Your task to perform on an android device: install app "Expedia: Hotels, Flights & Car" Image 0: 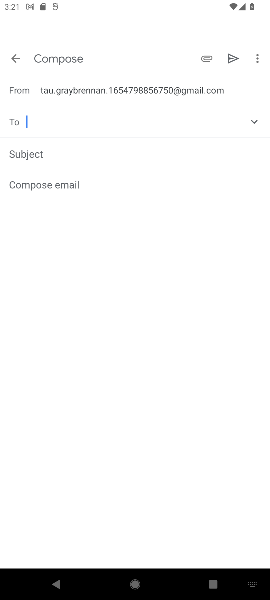
Step 0: press home button
Your task to perform on an android device: install app "Expedia: Hotels, Flights & Car" Image 1: 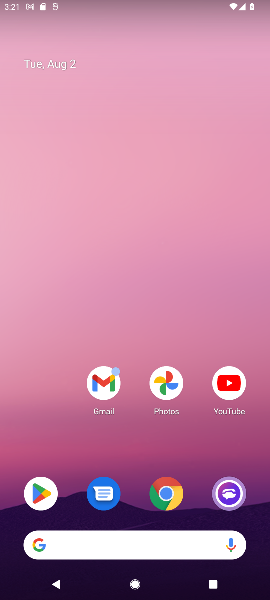
Step 1: click (38, 494)
Your task to perform on an android device: install app "Expedia: Hotels, Flights & Car" Image 2: 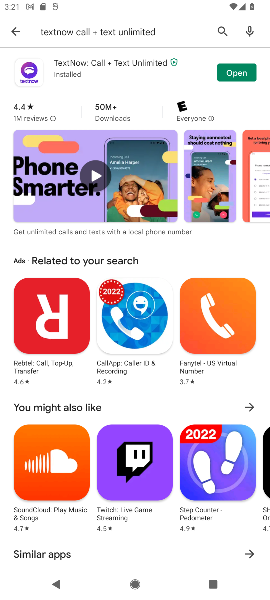
Step 2: click (222, 28)
Your task to perform on an android device: install app "Expedia: Hotels, Flights & Car" Image 3: 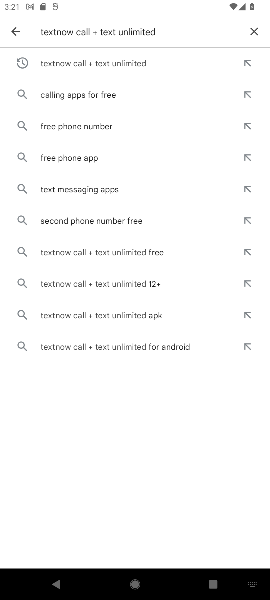
Step 3: click (254, 35)
Your task to perform on an android device: install app "Expedia: Hotels, Flights & Car" Image 4: 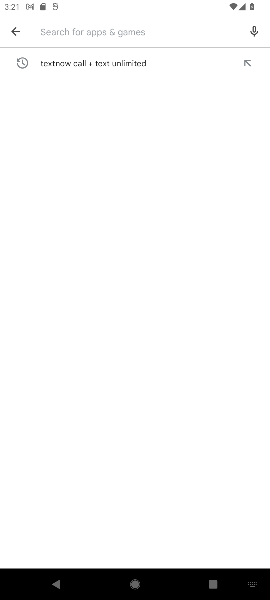
Step 4: type "Expedia: Hotels, Flights & Car"
Your task to perform on an android device: install app "Expedia: Hotels, Flights & Car" Image 5: 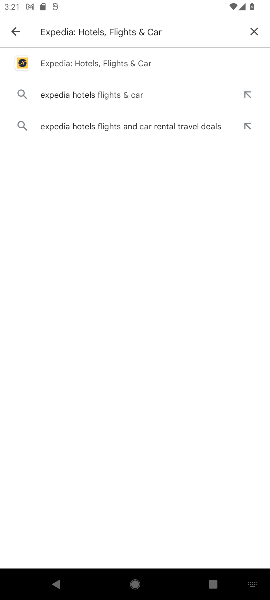
Step 5: click (103, 63)
Your task to perform on an android device: install app "Expedia: Hotels, Flights & Car" Image 6: 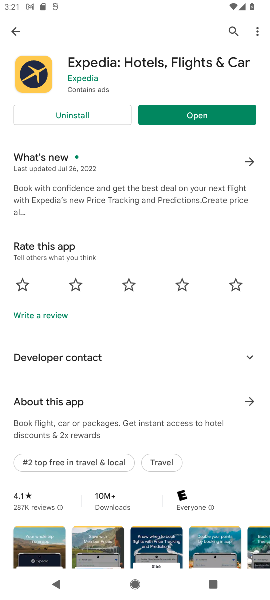
Step 6: task complete